Your task to perform on an android device: Open accessibility settings Image 0: 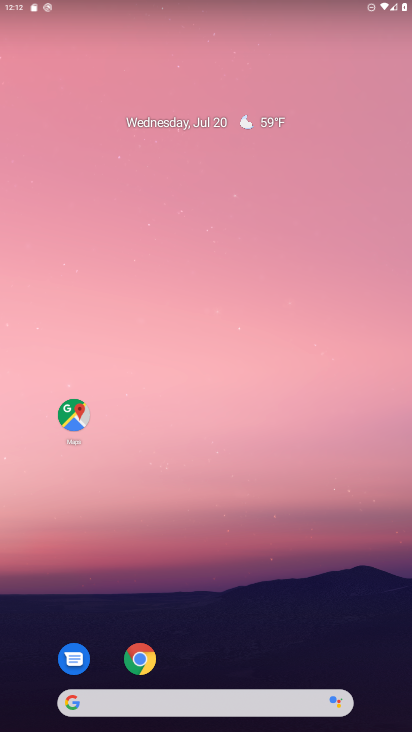
Step 0: drag from (305, 585) to (245, 20)
Your task to perform on an android device: Open accessibility settings Image 1: 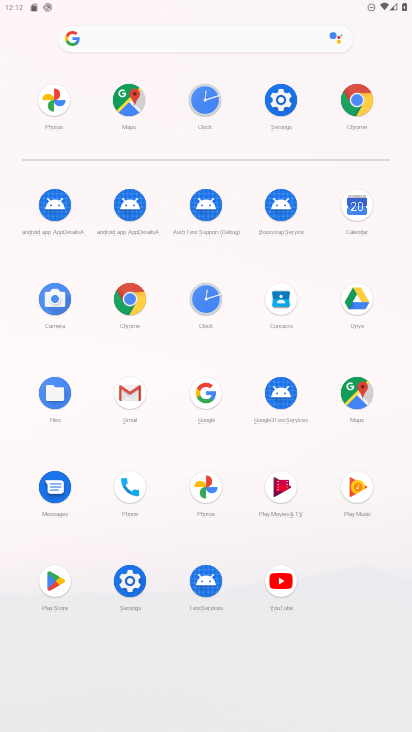
Step 1: click (294, 103)
Your task to perform on an android device: Open accessibility settings Image 2: 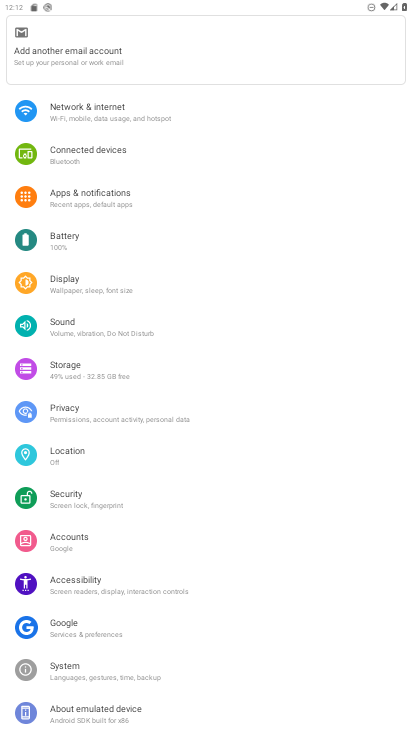
Step 2: click (125, 584)
Your task to perform on an android device: Open accessibility settings Image 3: 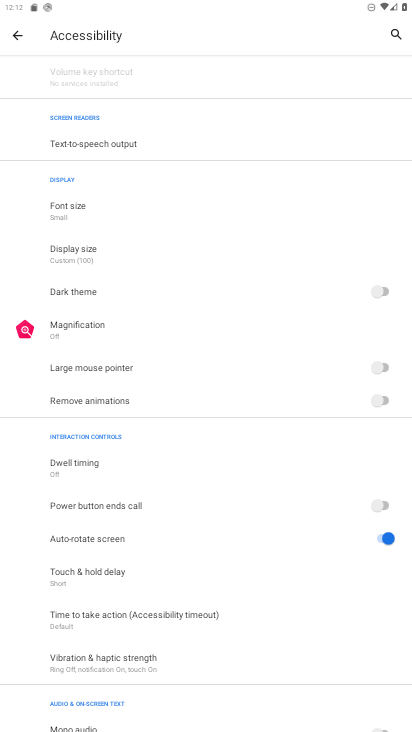
Step 3: task complete